Your task to perform on an android device: see tabs open on other devices in the chrome app Image 0: 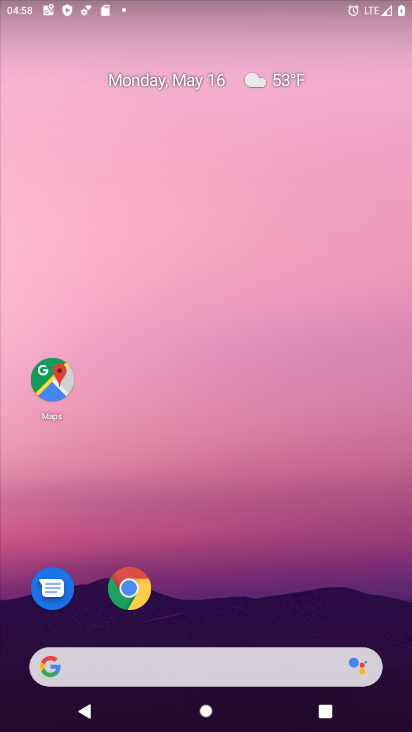
Step 0: drag from (216, 509) to (214, 24)
Your task to perform on an android device: see tabs open on other devices in the chrome app Image 1: 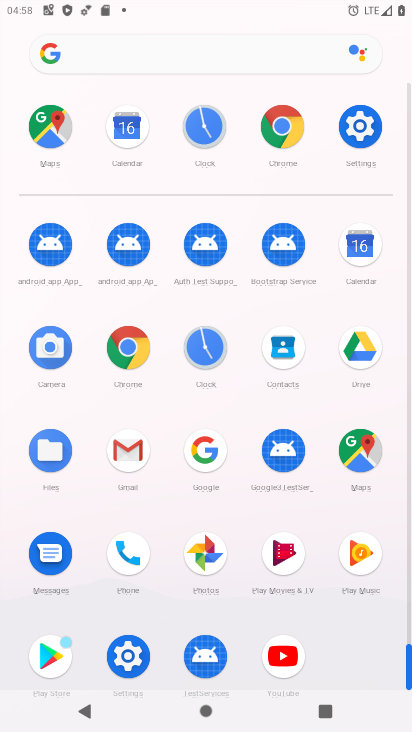
Step 1: click (127, 346)
Your task to perform on an android device: see tabs open on other devices in the chrome app Image 2: 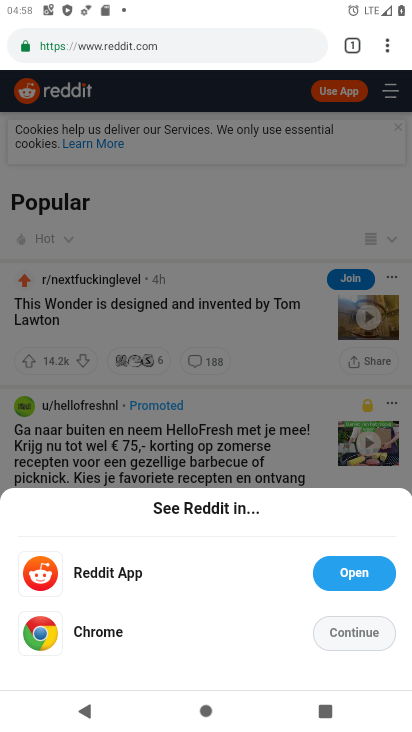
Step 2: task complete